Your task to perform on an android device: open chrome privacy settings Image 0: 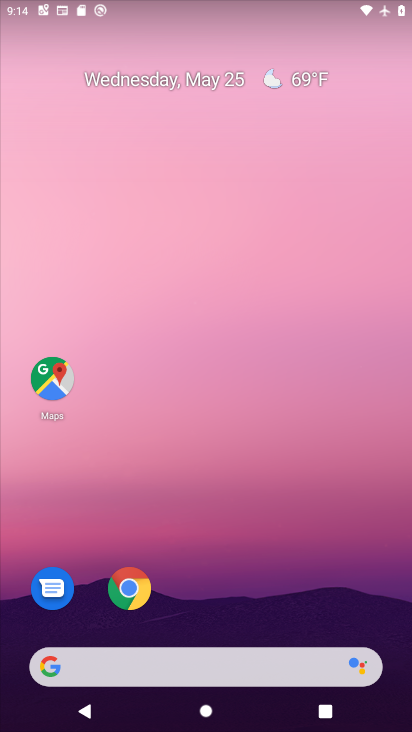
Step 0: drag from (379, 593) to (354, 218)
Your task to perform on an android device: open chrome privacy settings Image 1: 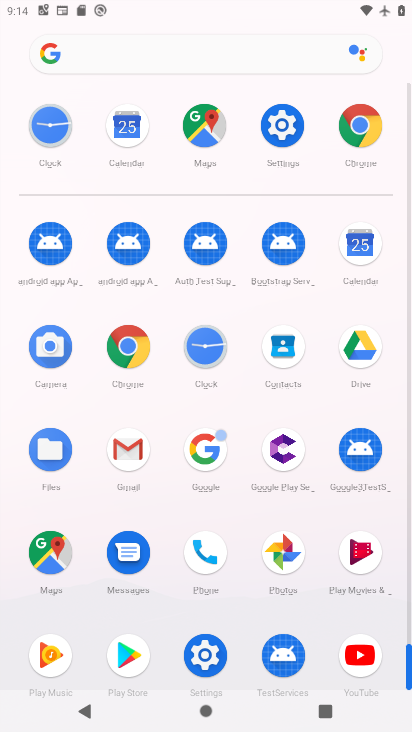
Step 1: click (130, 357)
Your task to perform on an android device: open chrome privacy settings Image 2: 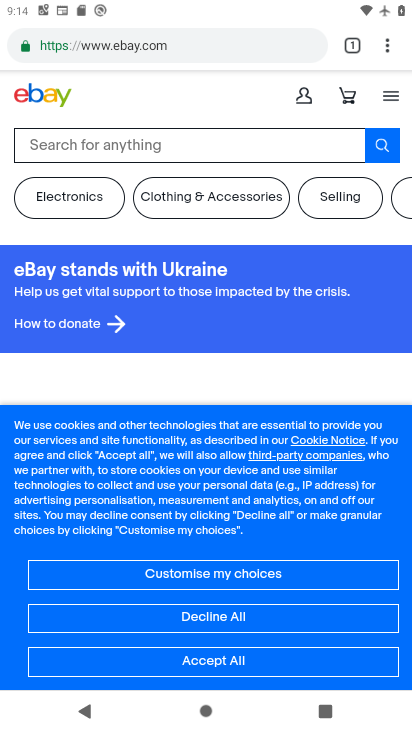
Step 2: click (390, 49)
Your task to perform on an android device: open chrome privacy settings Image 3: 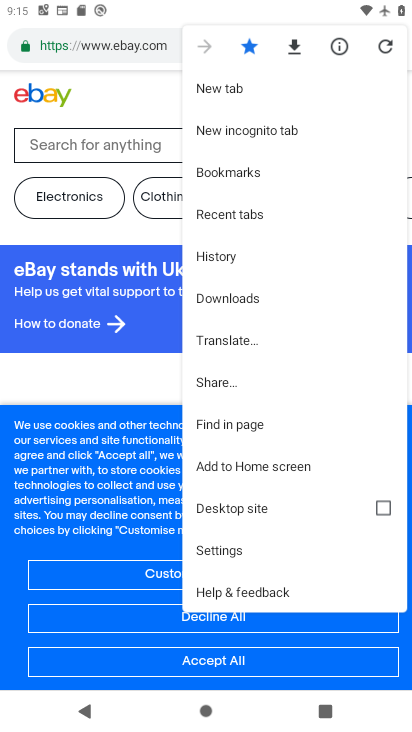
Step 3: click (243, 552)
Your task to perform on an android device: open chrome privacy settings Image 4: 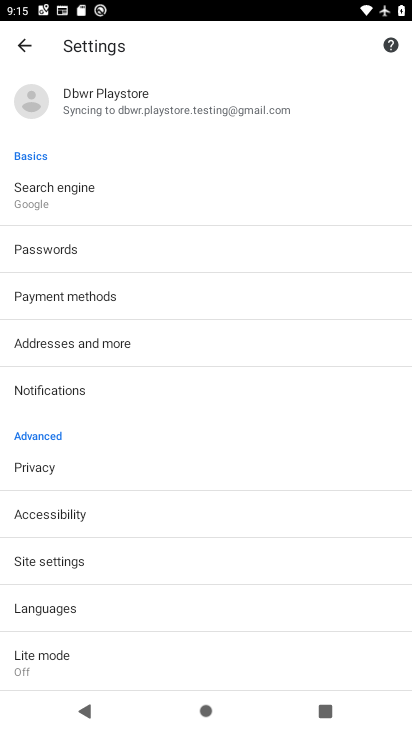
Step 4: drag from (249, 579) to (271, 487)
Your task to perform on an android device: open chrome privacy settings Image 5: 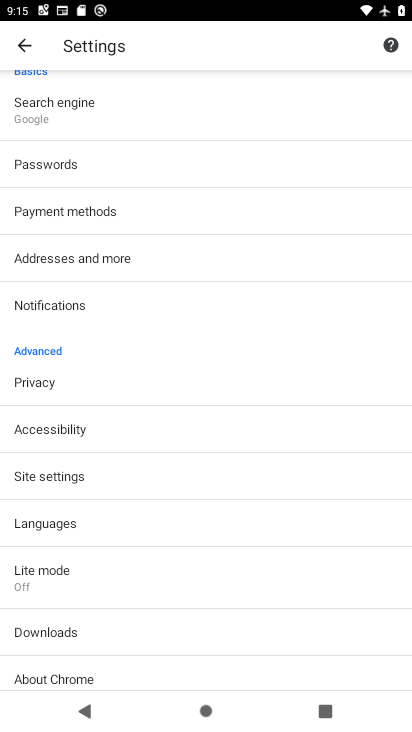
Step 5: drag from (297, 600) to (303, 495)
Your task to perform on an android device: open chrome privacy settings Image 6: 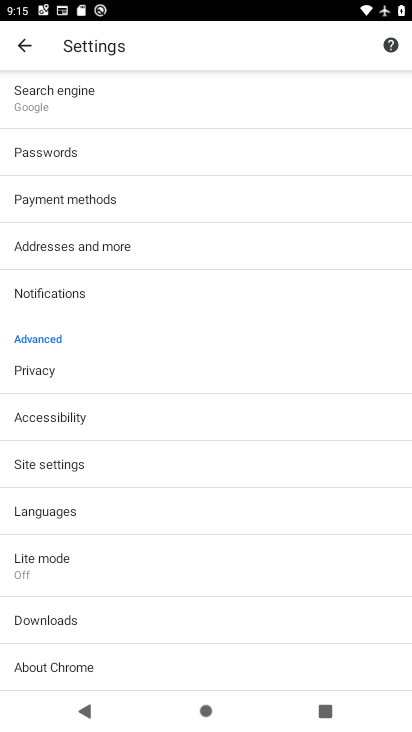
Step 6: click (187, 369)
Your task to perform on an android device: open chrome privacy settings Image 7: 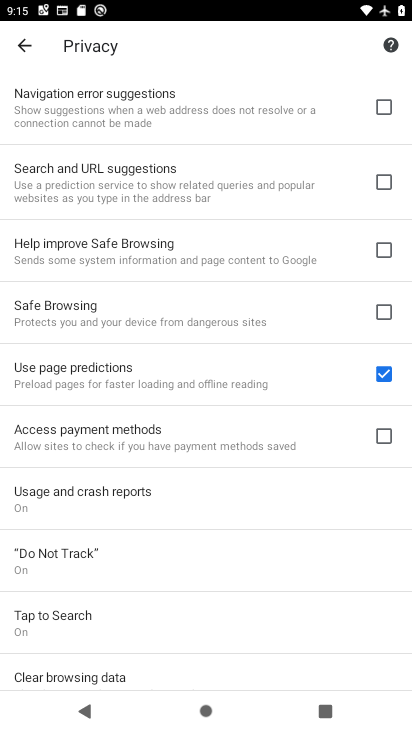
Step 7: task complete